Your task to perform on an android device: turn on airplane mode Image 0: 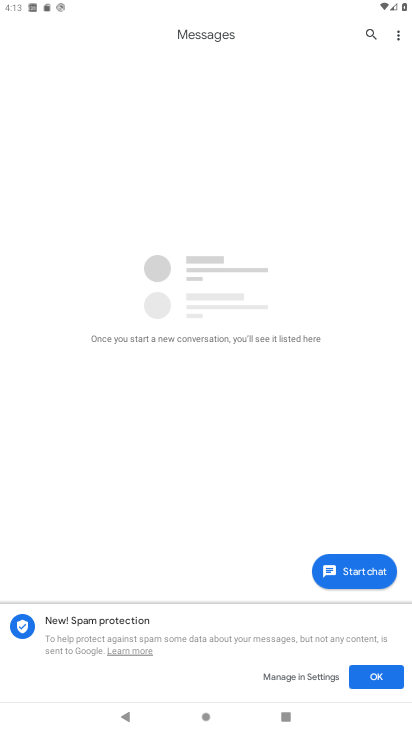
Step 0: press home button
Your task to perform on an android device: turn on airplane mode Image 1: 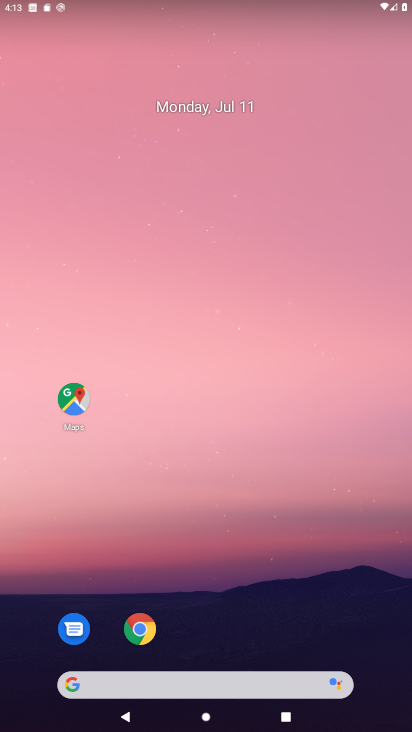
Step 1: drag from (373, 413) to (359, 87)
Your task to perform on an android device: turn on airplane mode Image 2: 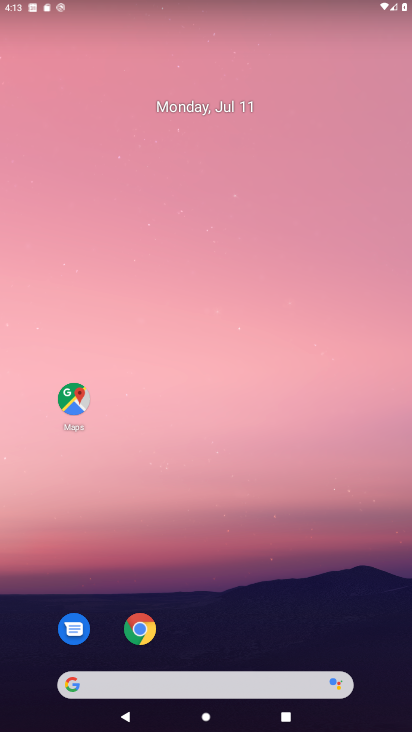
Step 2: drag from (393, 693) to (290, 1)
Your task to perform on an android device: turn on airplane mode Image 3: 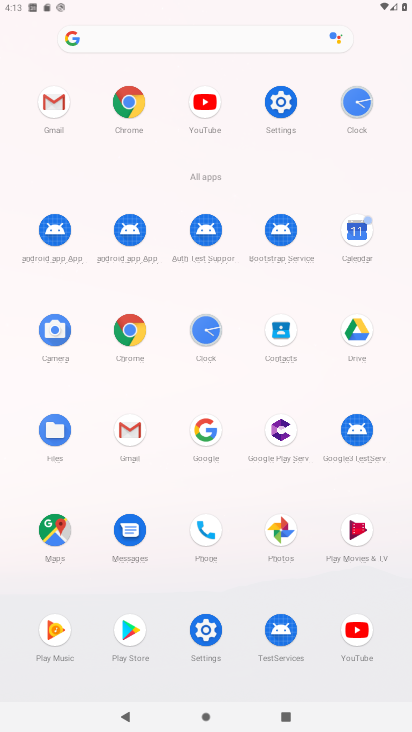
Step 3: click (274, 106)
Your task to perform on an android device: turn on airplane mode Image 4: 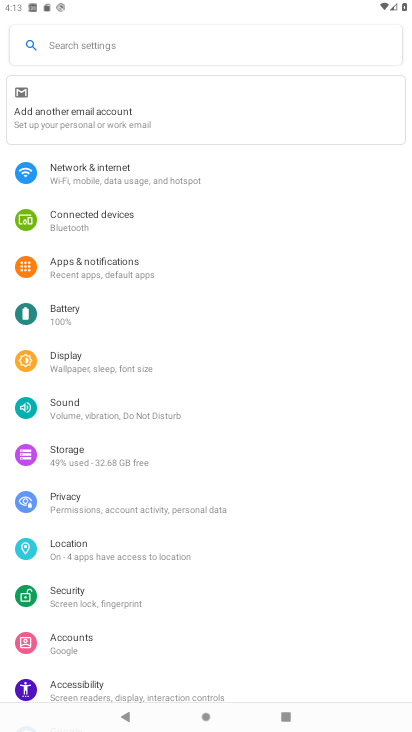
Step 4: click (76, 165)
Your task to perform on an android device: turn on airplane mode Image 5: 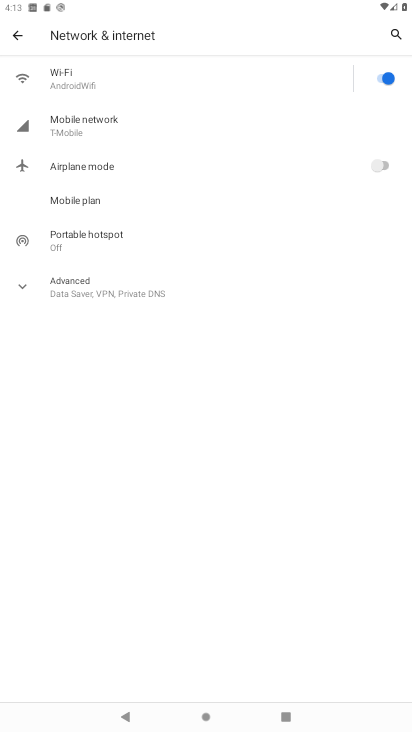
Step 5: click (386, 164)
Your task to perform on an android device: turn on airplane mode Image 6: 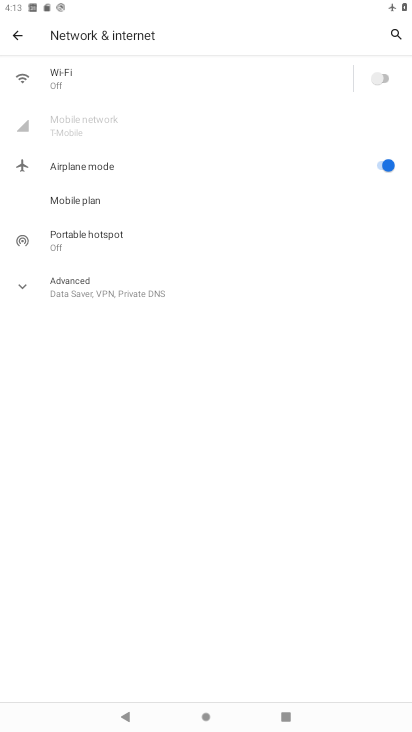
Step 6: task complete